Your task to perform on an android device: change your default location settings in chrome Image 0: 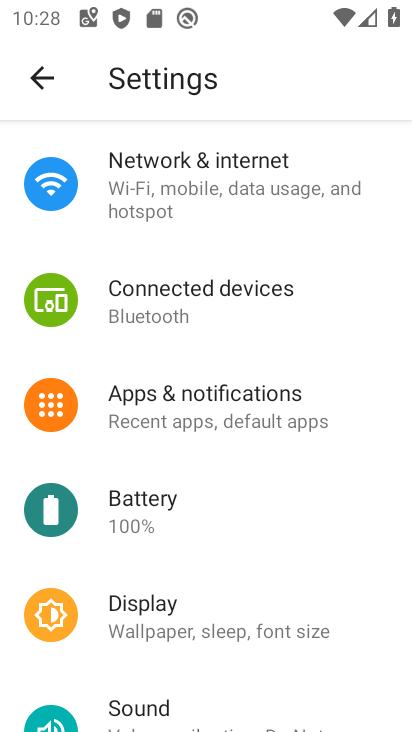
Step 0: press home button
Your task to perform on an android device: change your default location settings in chrome Image 1: 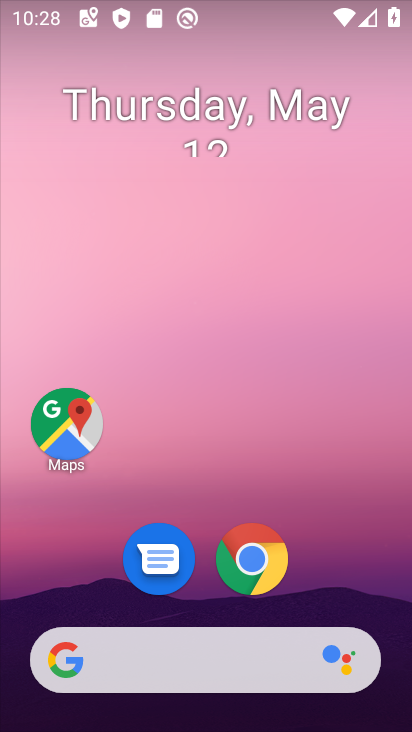
Step 1: click (255, 539)
Your task to perform on an android device: change your default location settings in chrome Image 2: 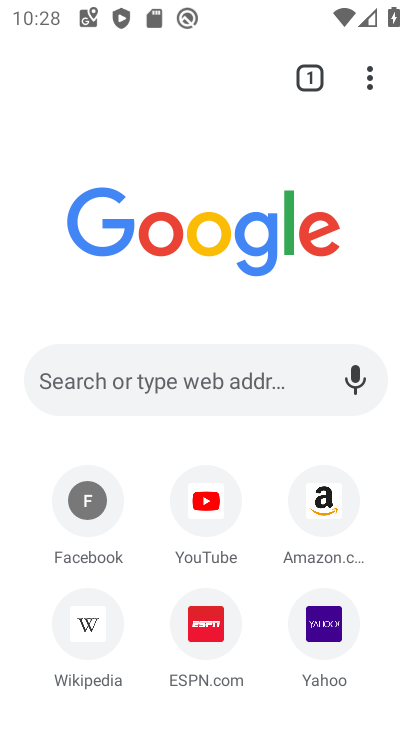
Step 2: drag from (370, 83) to (142, 622)
Your task to perform on an android device: change your default location settings in chrome Image 3: 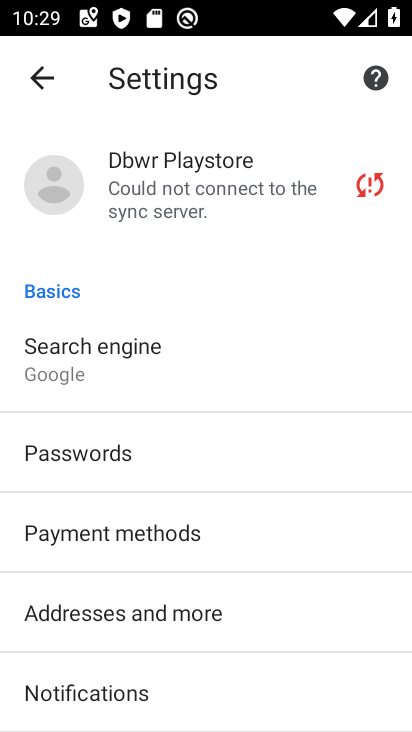
Step 3: drag from (142, 622) to (170, 285)
Your task to perform on an android device: change your default location settings in chrome Image 4: 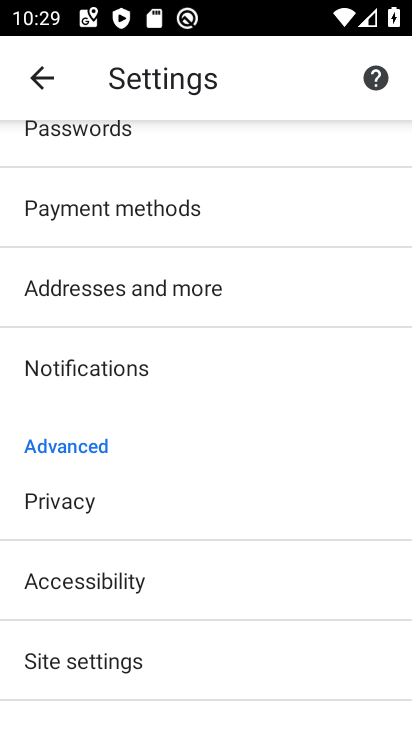
Step 4: click (115, 673)
Your task to perform on an android device: change your default location settings in chrome Image 5: 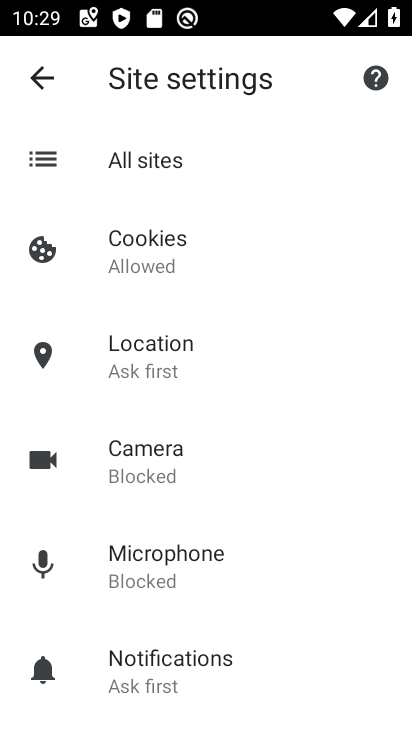
Step 5: click (162, 364)
Your task to perform on an android device: change your default location settings in chrome Image 6: 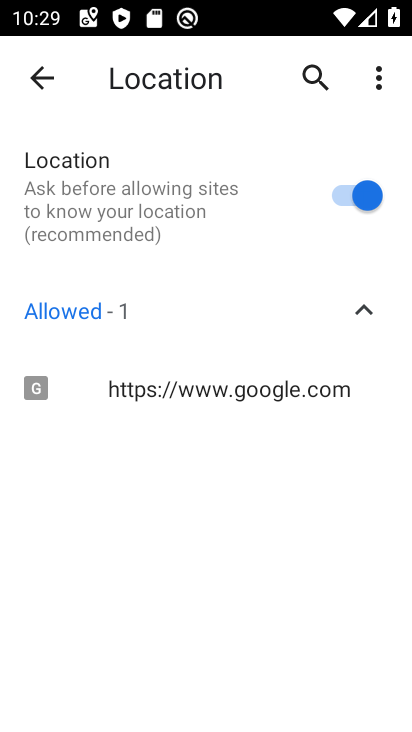
Step 6: click (346, 198)
Your task to perform on an android device: change your default location settings in chrome Image 7: 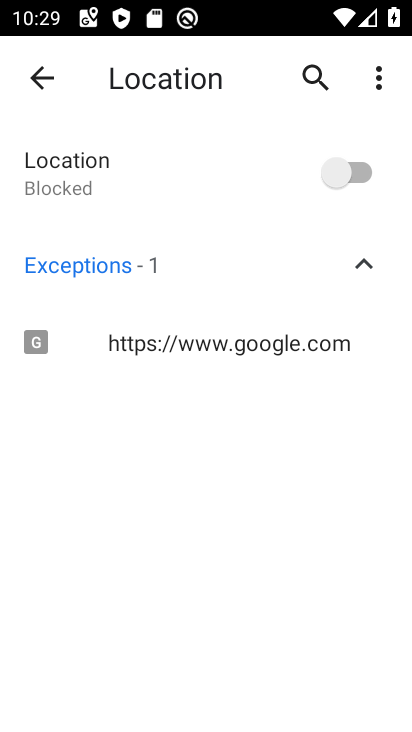
Step 7: task complete